Your task to perform on an android device: turn off wifi Image 0: 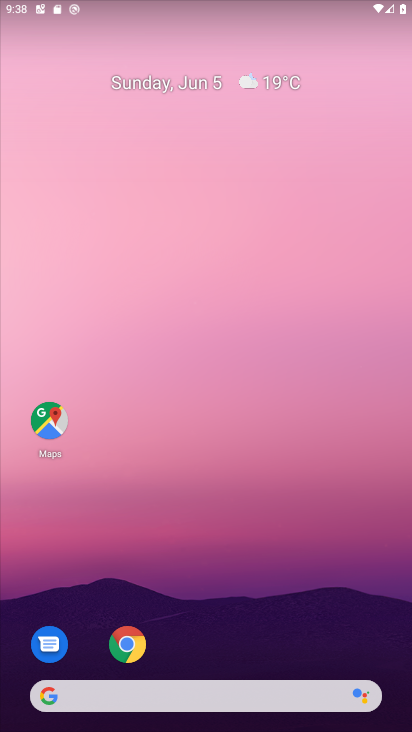
Step 0: drag from (315, 598) to (255, 14)
Your task to perform on an android device: turn off wifi Image 1: 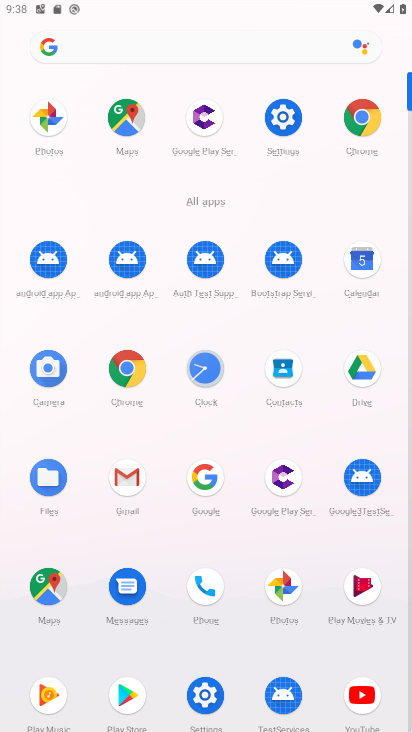
Step 1: click (285, 105)
Your task to perform on an android device: turn off wifi Image 2: 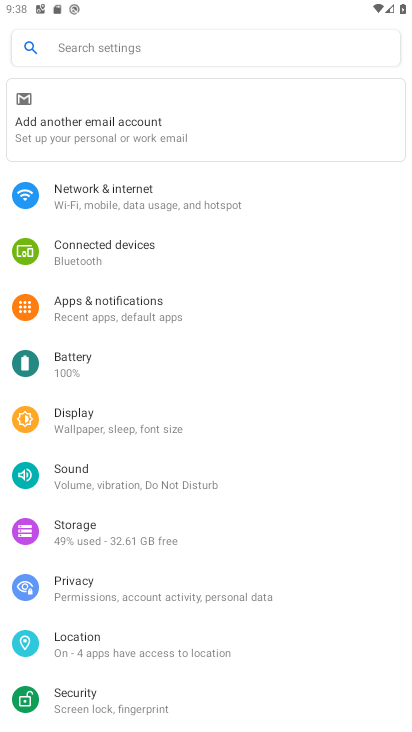
Step 2: drag from (245, 233) to (218, 606)
Your task to perform on an android device: turn off wifi Image 3: 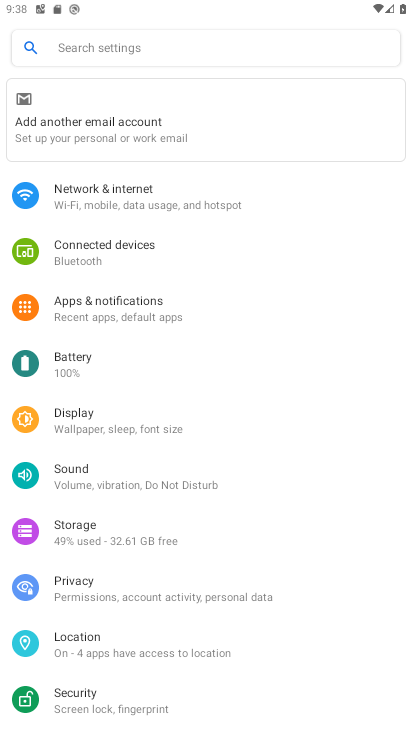
Step 3: click (154, 213)
Your task to perform on an android device: turn off wifi Image 4: 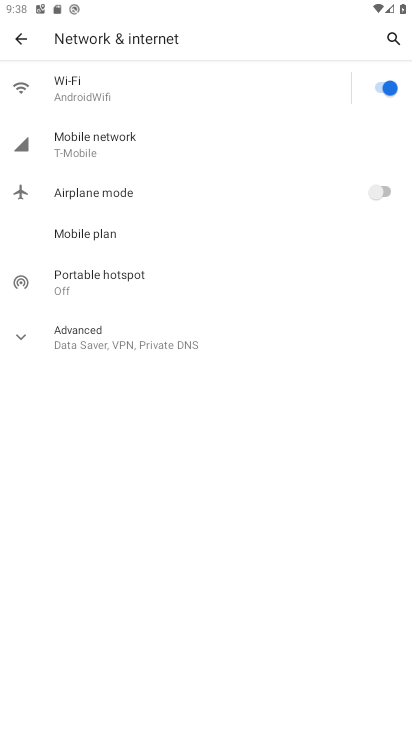
Step 4: click (381, 89)
Your task to perform on an android device: turn off wifi Image 5: 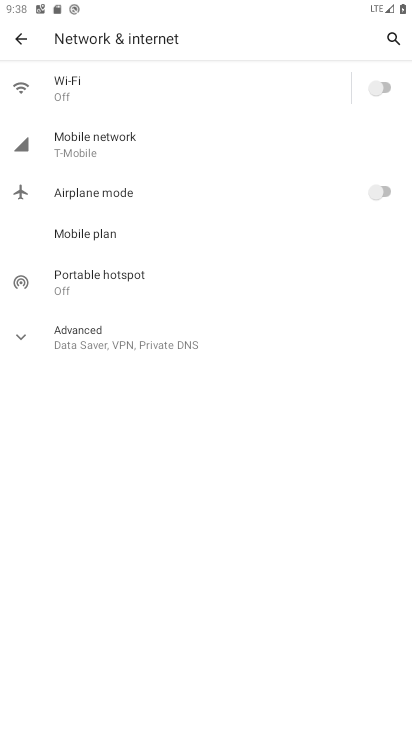
Step 5: task complete